Your task to perform on an android device: toggle improve location accuracy Image 0: 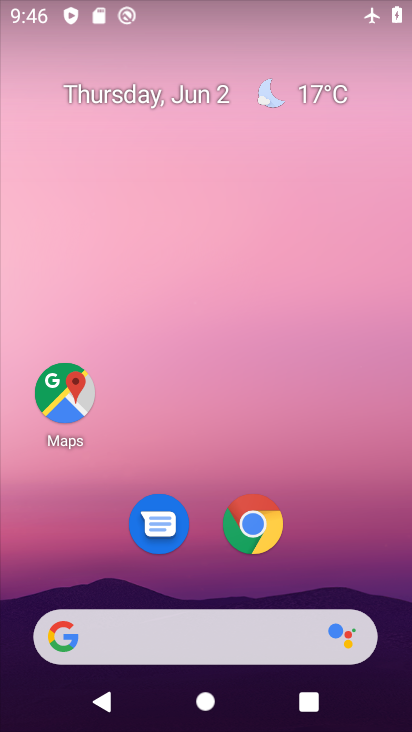
Step 0: drag from (193, 439) to (183, 3)
Your task to perform on an android device: toggle improve location accuracy Image 1: 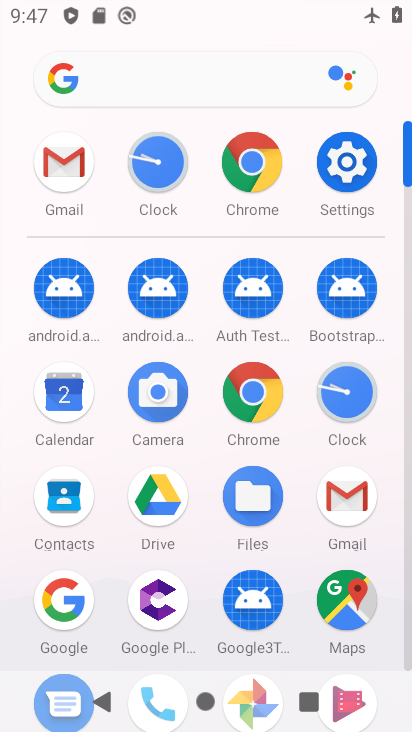
Step 1: click (344, 165)
Your task to perform on an android device: toggle improve location accuracy Image 2: 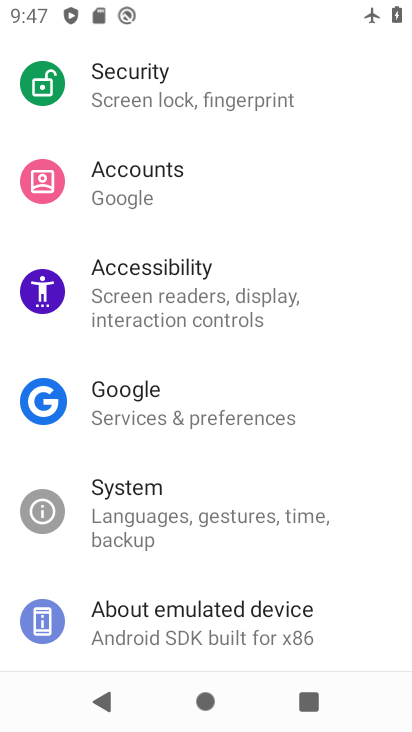
Step 2: drag from (221, 137) to (254, 605)
Your task to perform on an android device: toggle improve location accuracy Image 3: 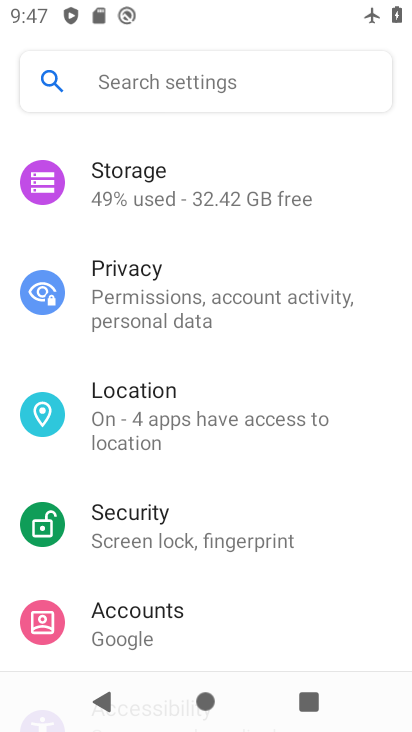
Step 3: click (205, 405)
Your task to perform on an android device: toggle improve location accuracy Image 4: 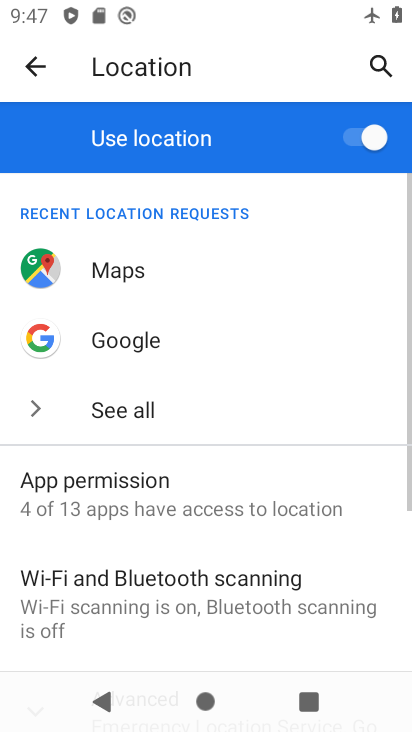
Step 4: drag from (219, 480) to (220, 209)
Your task to perform on an android device: toggle improve location accuracy Image 5: 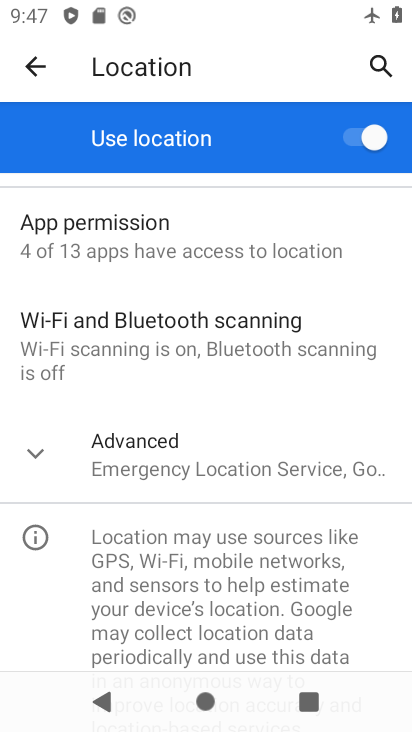
Step 5: click (36, 449)
Your task to perform on an android device: toggle improve location accuracy Image 6: 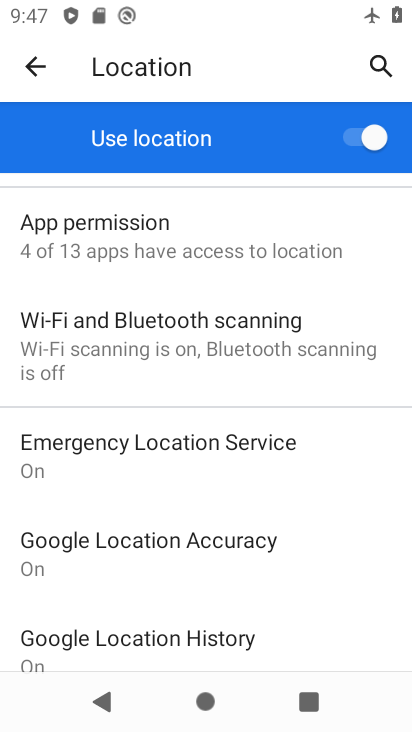
Step 6: click (226, 545)
Your task to perform on an android device: toggle improve location accuracy Image 7: 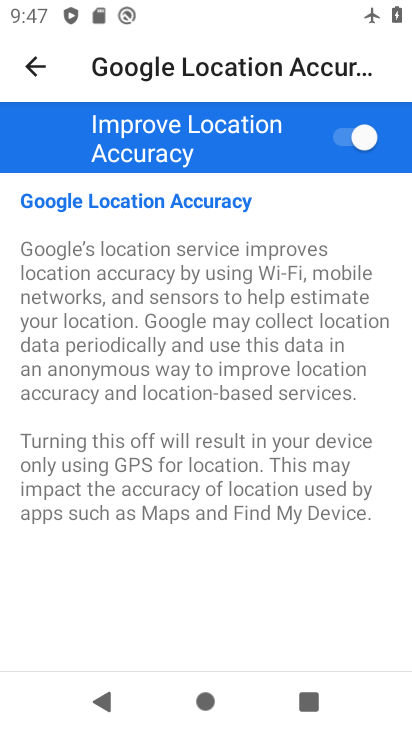
Step 7: click (356, 140)
Your task to perform on an android device: toggle improve location accuracy Image 8: 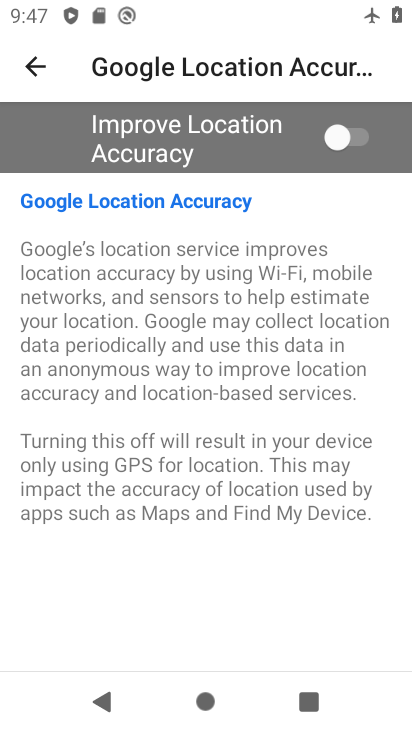
Step 8: task complete